Your task to perform on an android device: Check the new Jordans on Nike. Image 0: 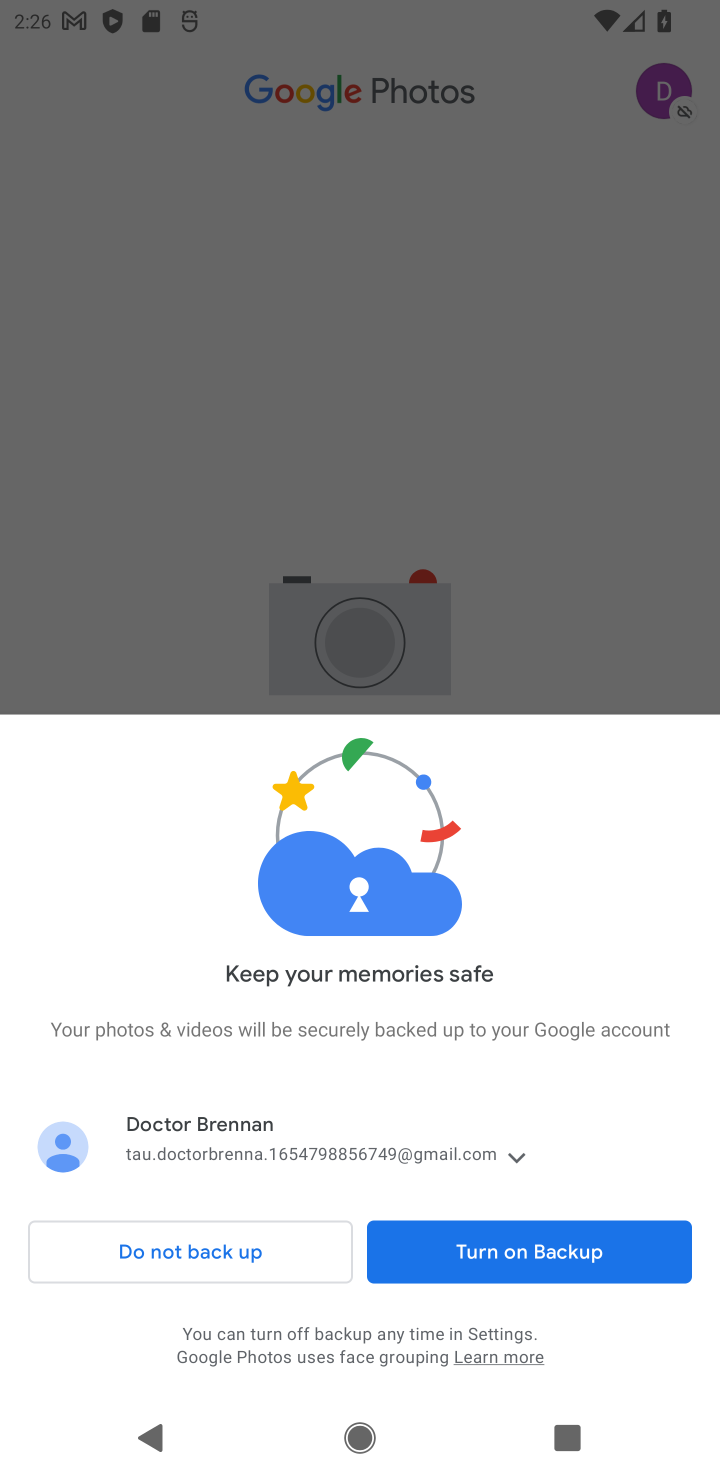
Step 0: press home button
Your task to perform on an android device: Check the new Jordans on Nike. Image 1: 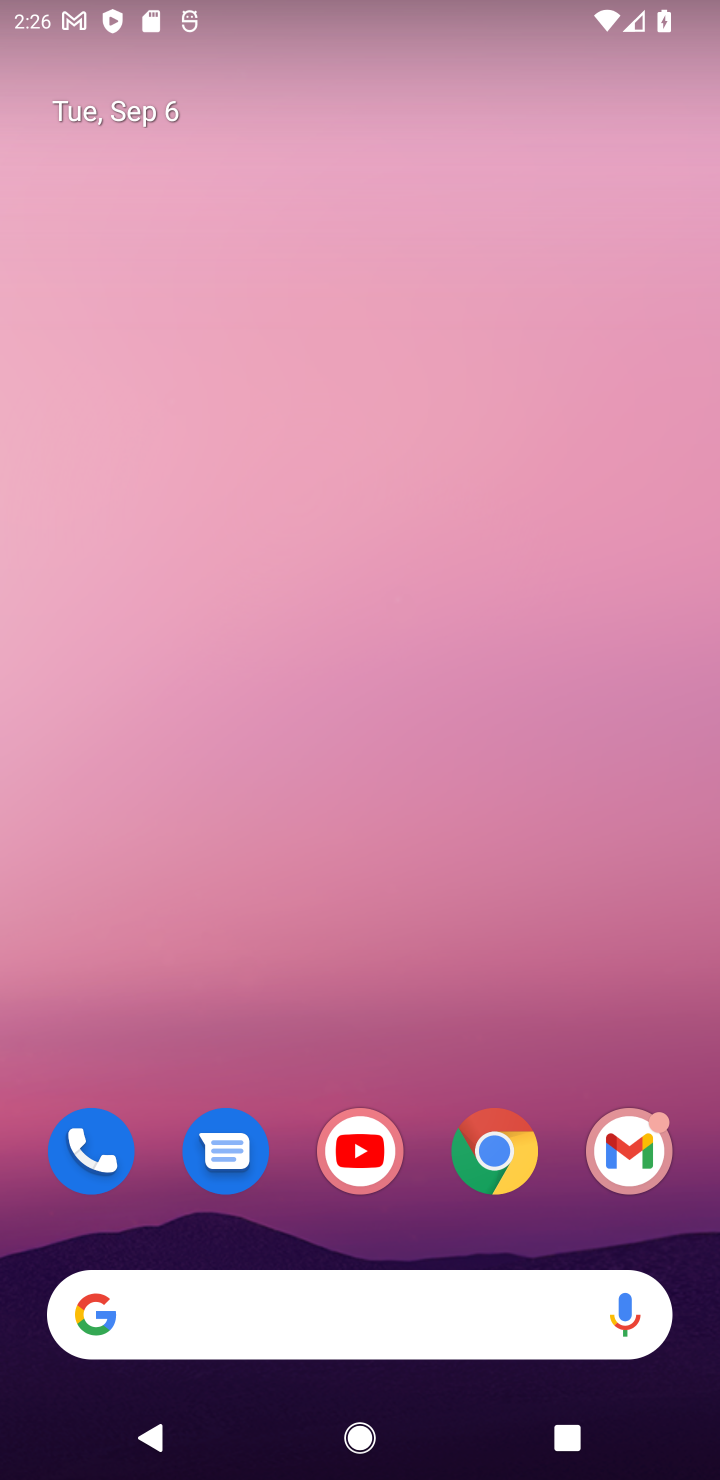
Step 1: click (473, 1150)
Your task to perform on an android device: Check the new Jordans on Nike. Image 2: 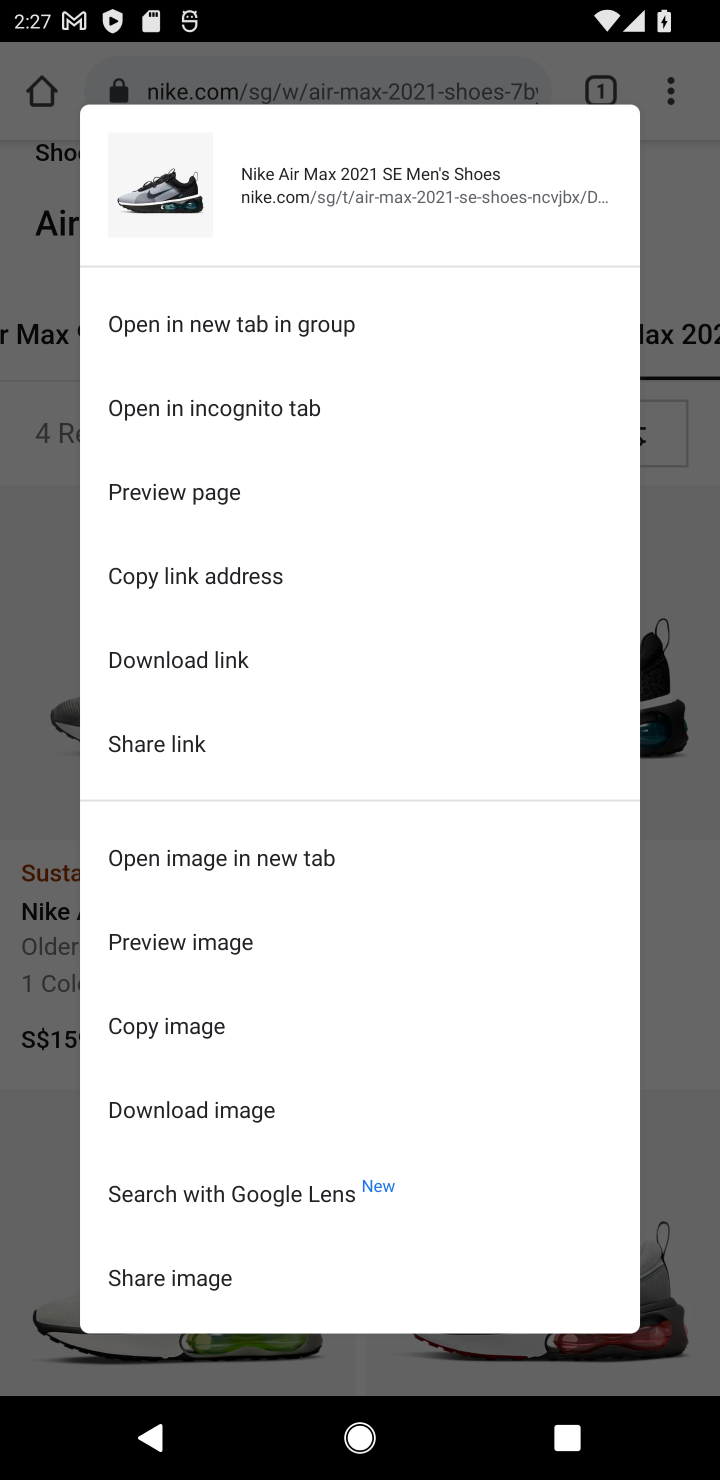
Step 2: press home button
Your task to perform on an android device: Check the new Jordans on Nike. Image 3: 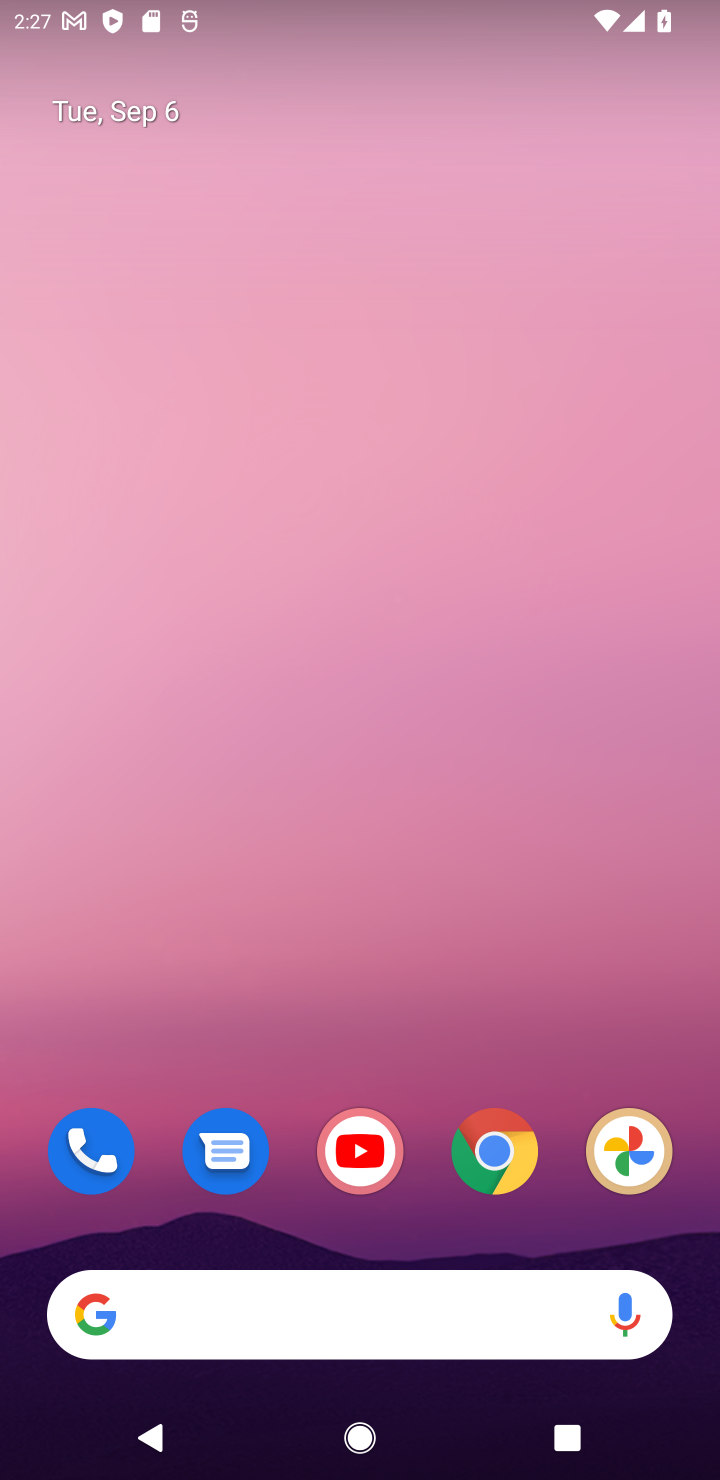
Step 3: click (482, 1146)
Your task to perform on an android device: Check the new Jordans on Nike. Image 4: 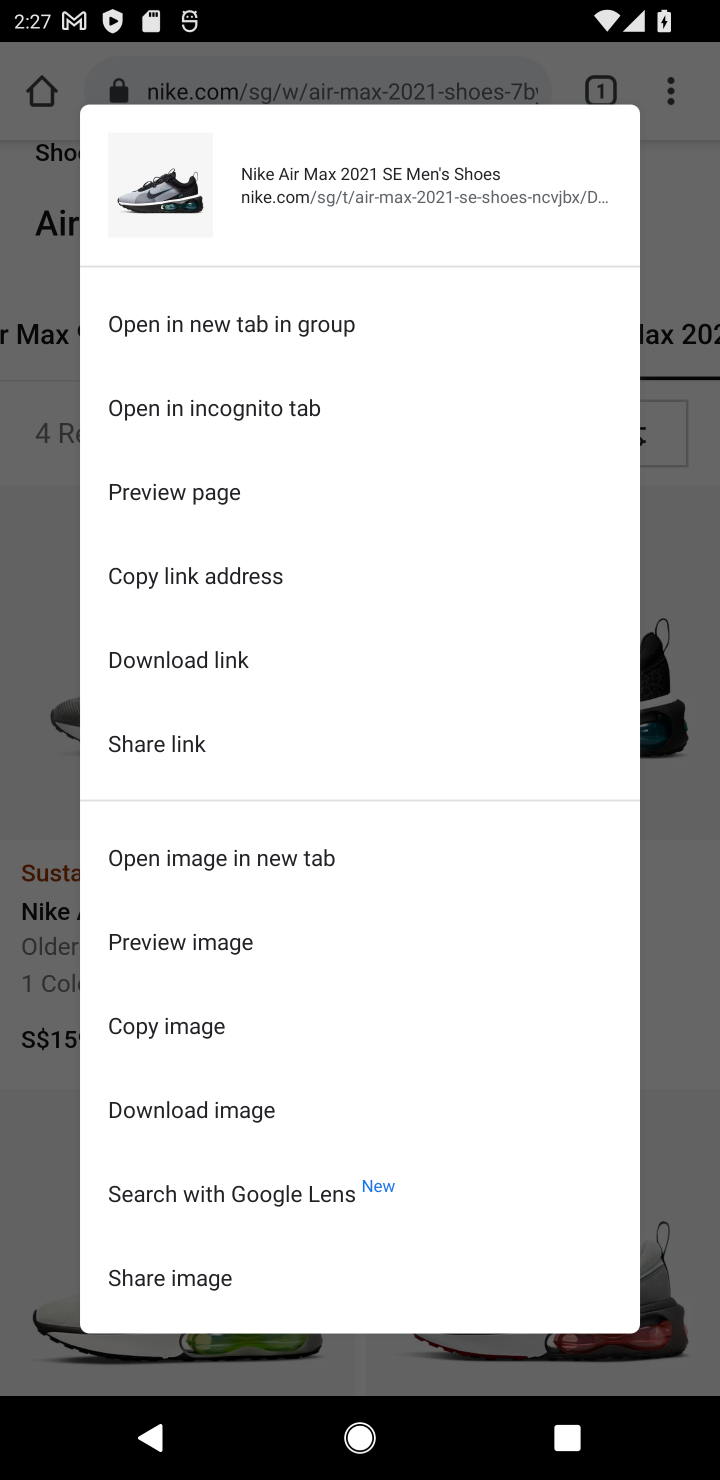
Step 4: click (692, 597)
Your task to perform on an android device: Check the new Jordans on Nike. Image 5: 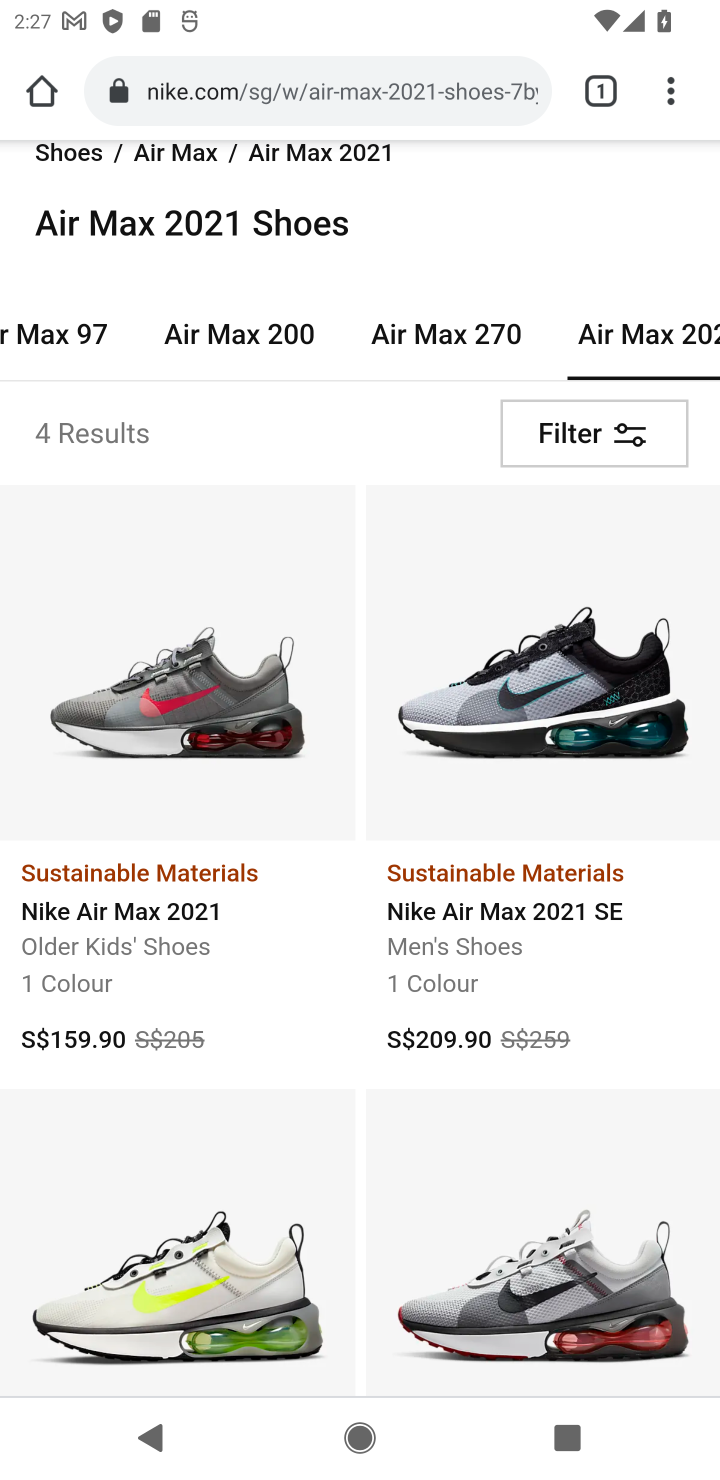
Step 5: click (330, 89)
Your task to perform on an android device: Check the new Jordans on Nike. Image 6: 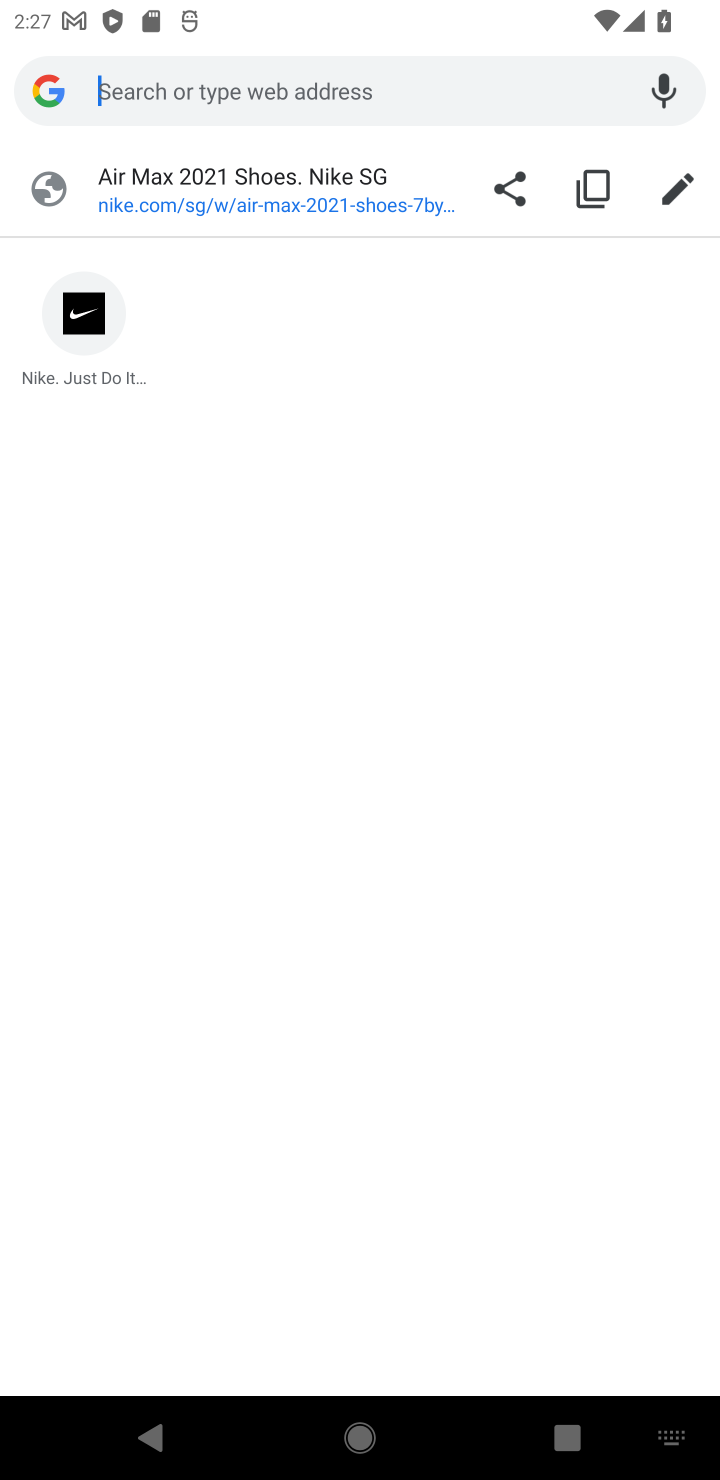
Step 6: type "new jordan on nike"
Your task to perform on an android device: Check the new Jordans on Nike. Image 7: 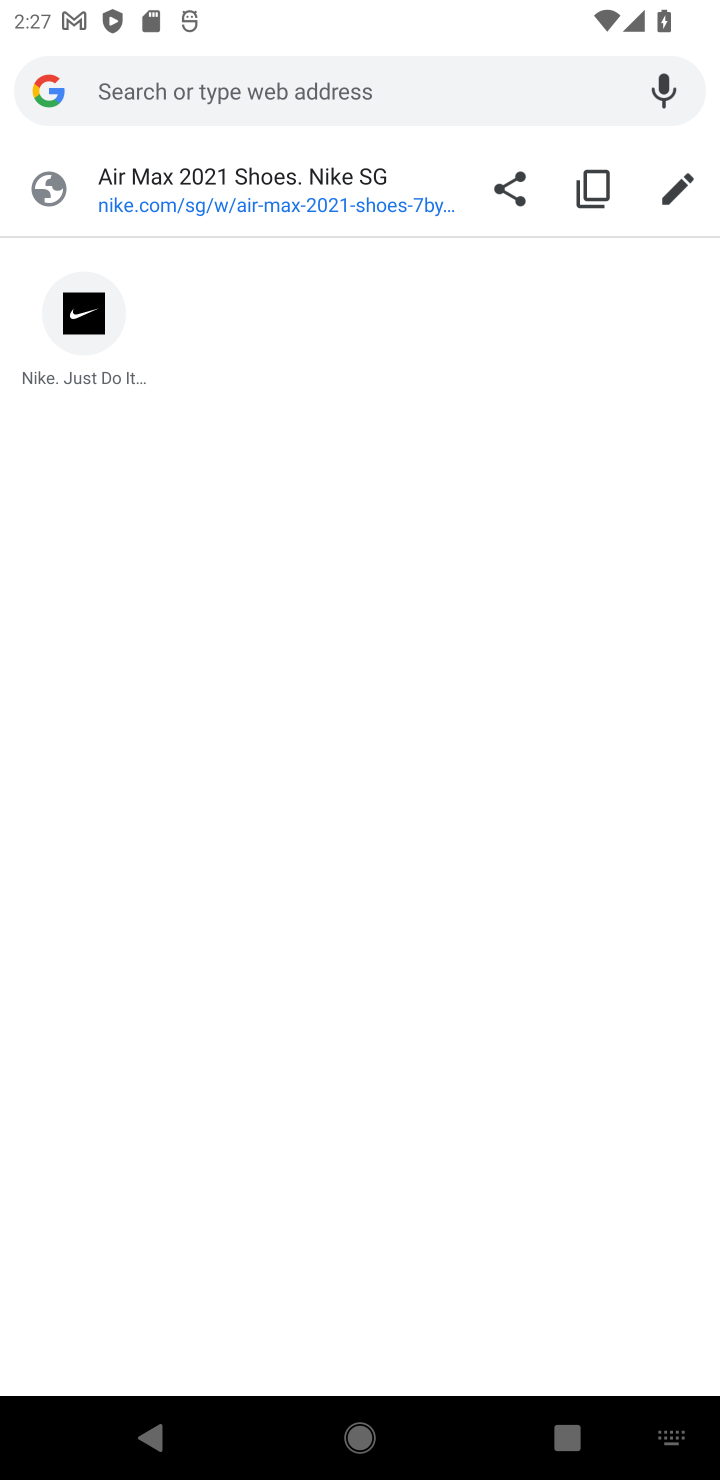
Step 7: click (75, 322)
Your task to perform on an android device: Check the new Jordans on Nike. Image 8: 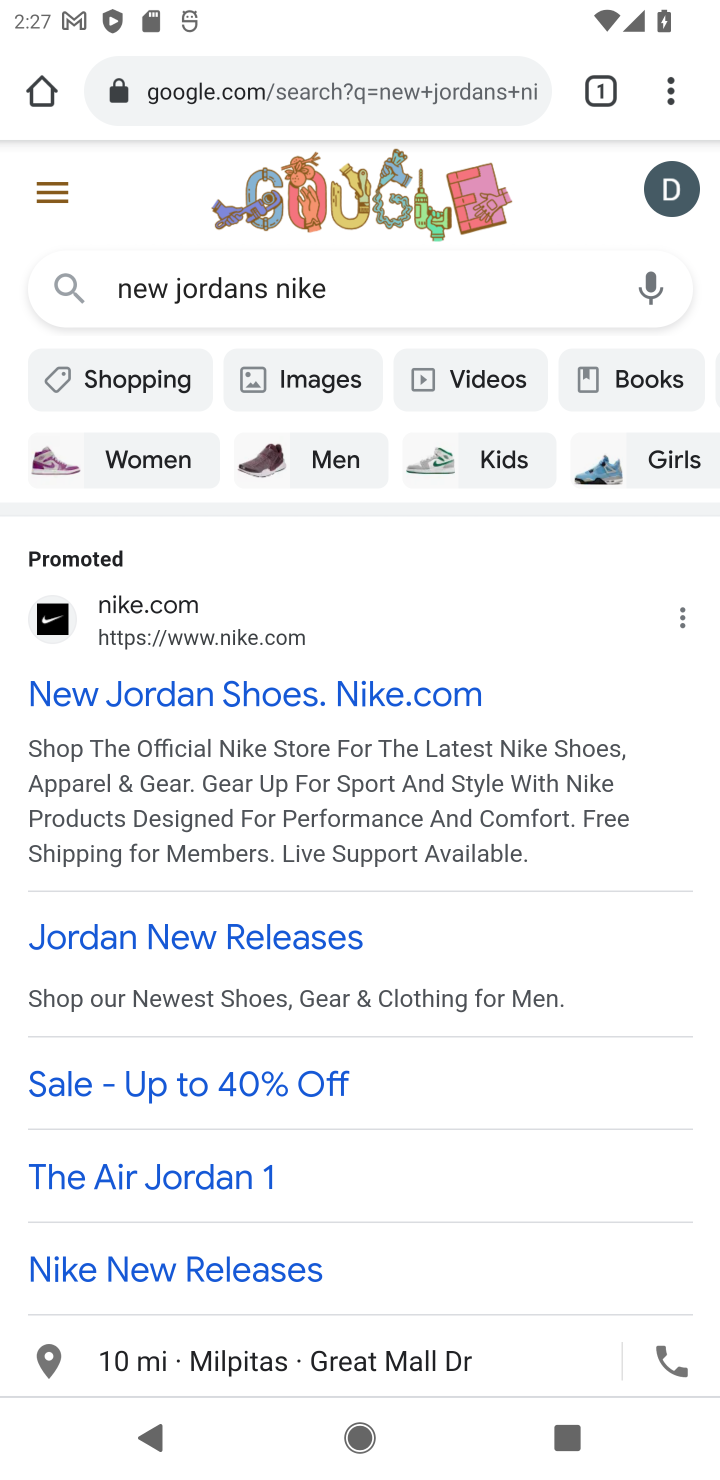
Step 8: click (153, 698)
Your task to perform on an android device: Check the new Jordans on Nike. Image 9: 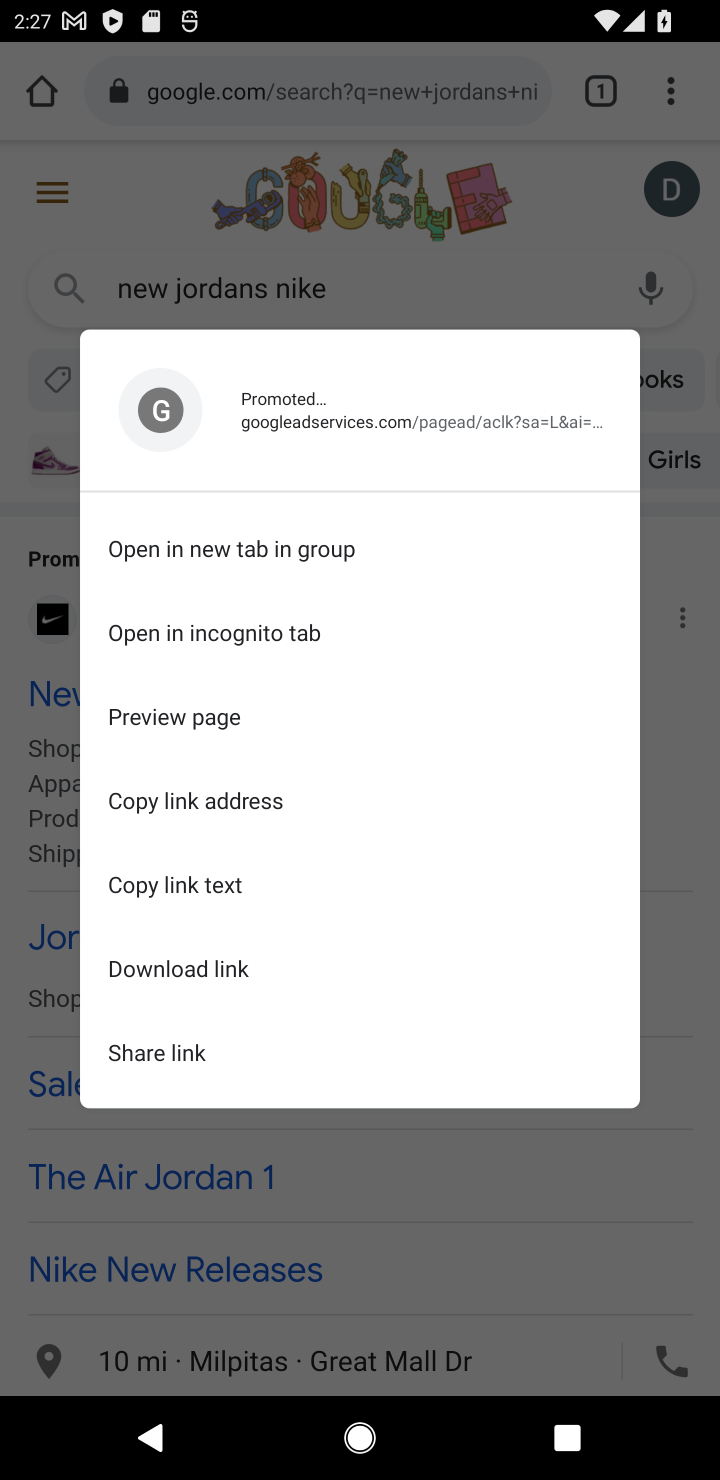
Step 9: click (656, 876)
Your task to perform on an android device: Check the new Jordans on Nike. Image 10: 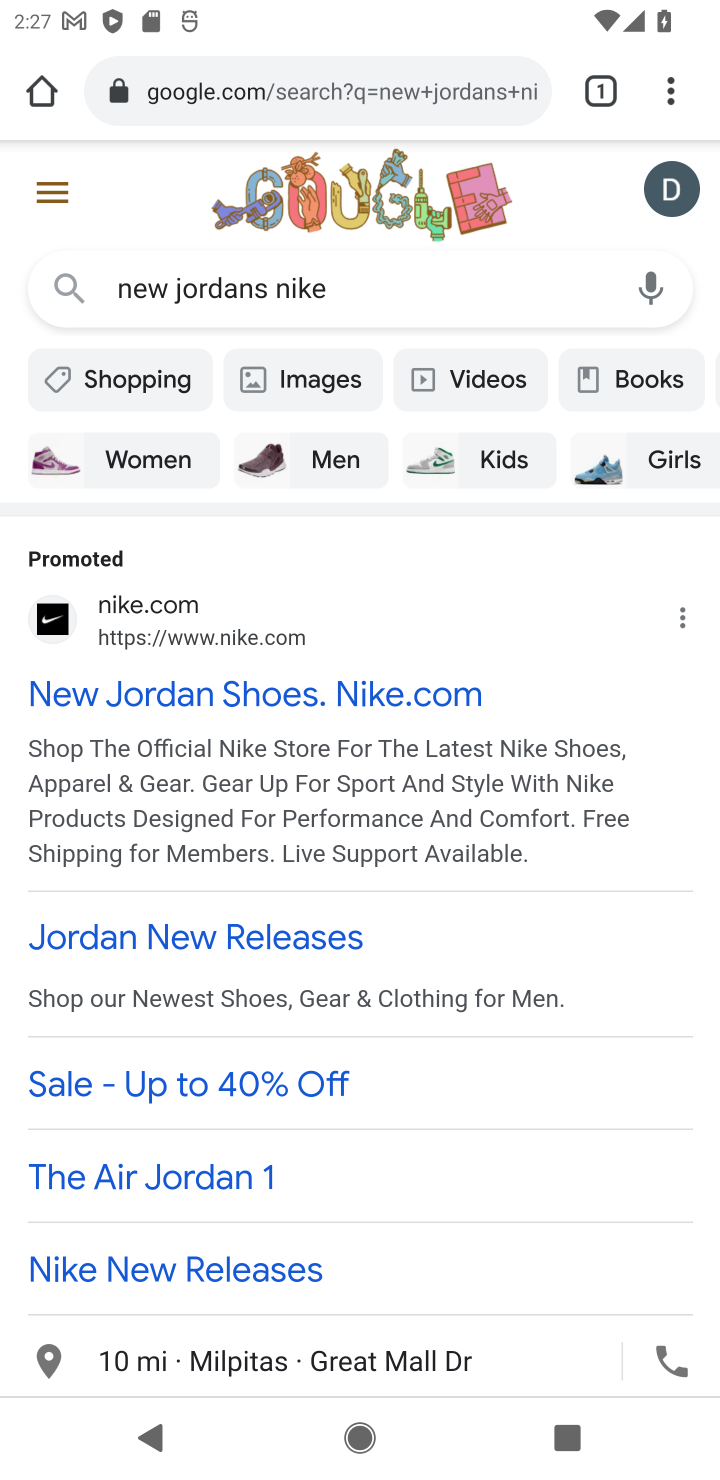
Step 10: click (147, 699)
Your task to perform on an android device: Check the new Jordans on Nike. Image 11: 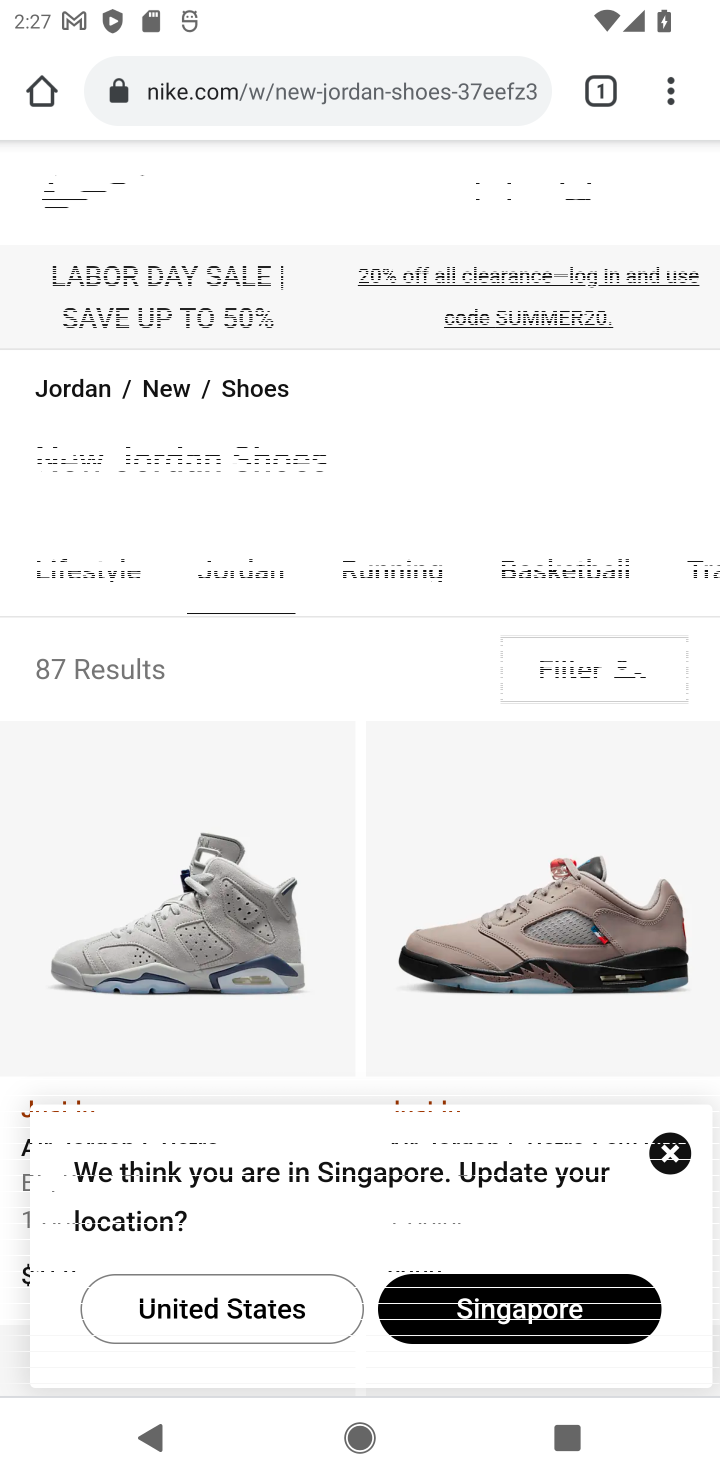
Step 11: click (668, 1157)
Your task to perform on an android device: Check the new Jordans on Nike. Image 12: 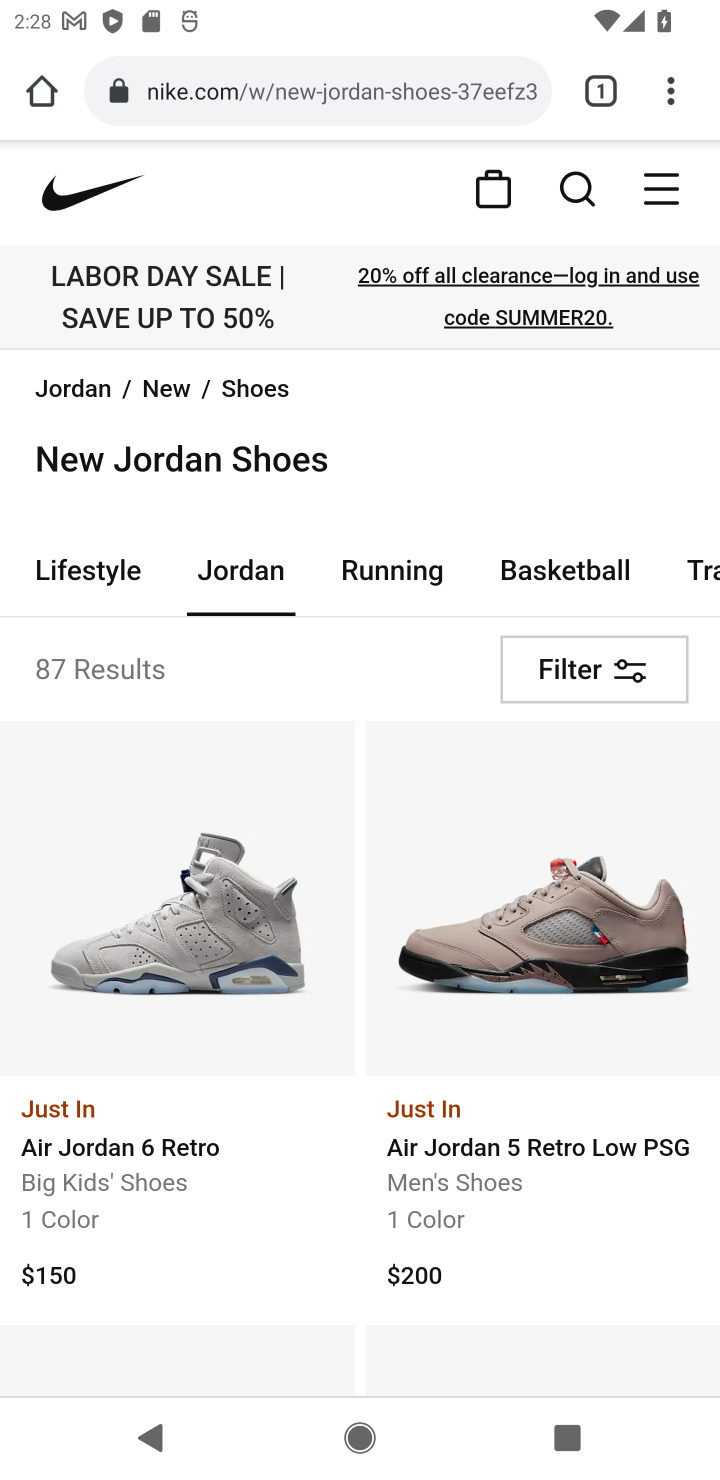
Step 12: drag from (292, 948) to (362, 420)
Your task to perform on an android device: Check the new Jordans on Nike. Image 13: 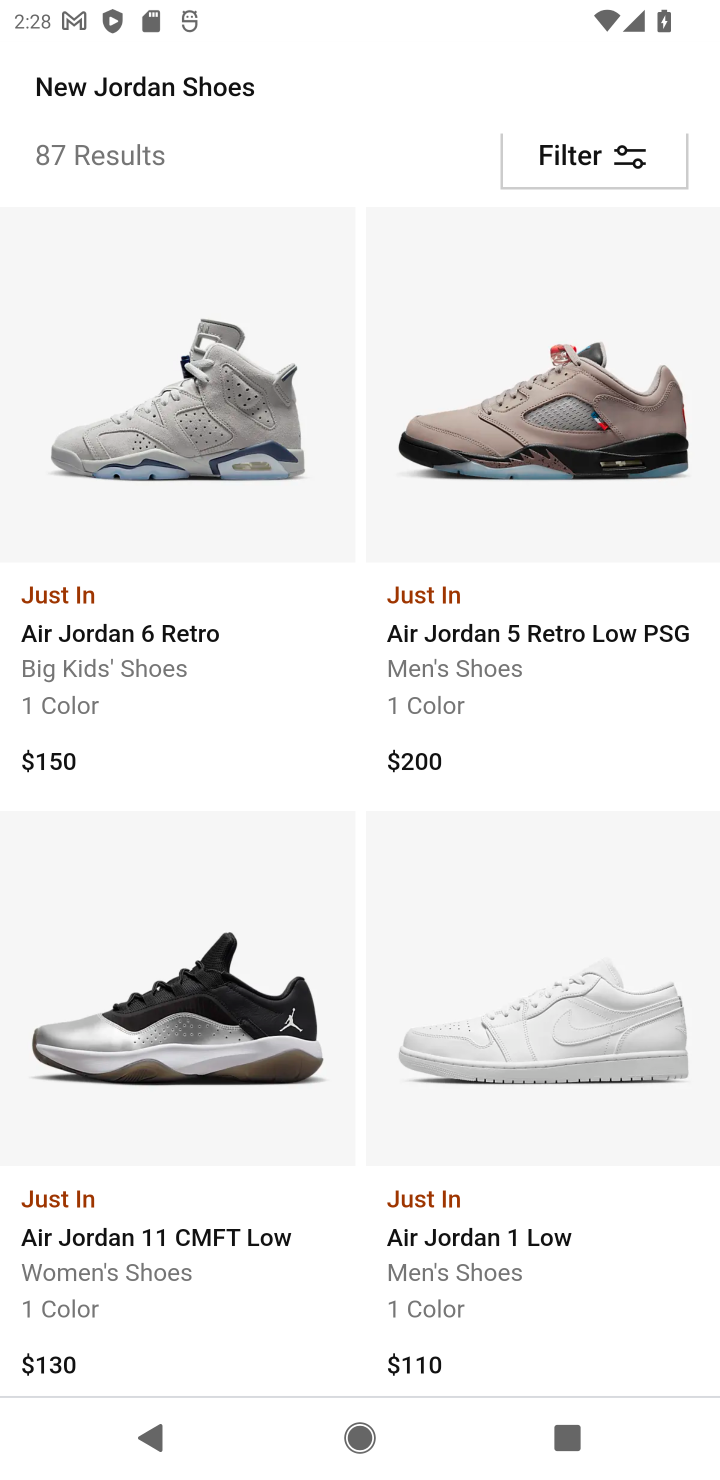
Step 13: drag from (597, 1246) to (597, 551)
Your task to perform on an android device: Check the new Jordans on Nike. Image 14: 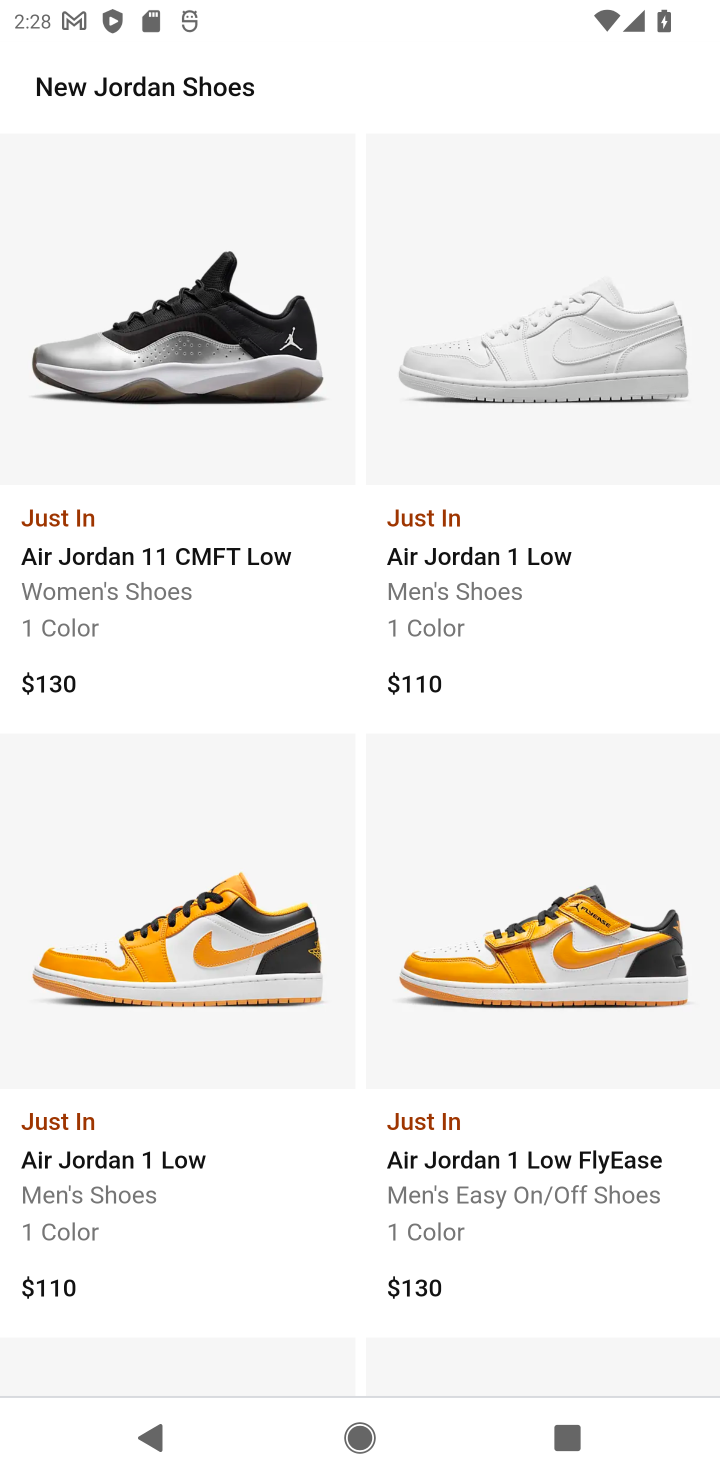
Step 14: drag from (268, 1243) to (282, 196)
Your task to perform on an android device: Check the new Jordans on Nike. Image 15: 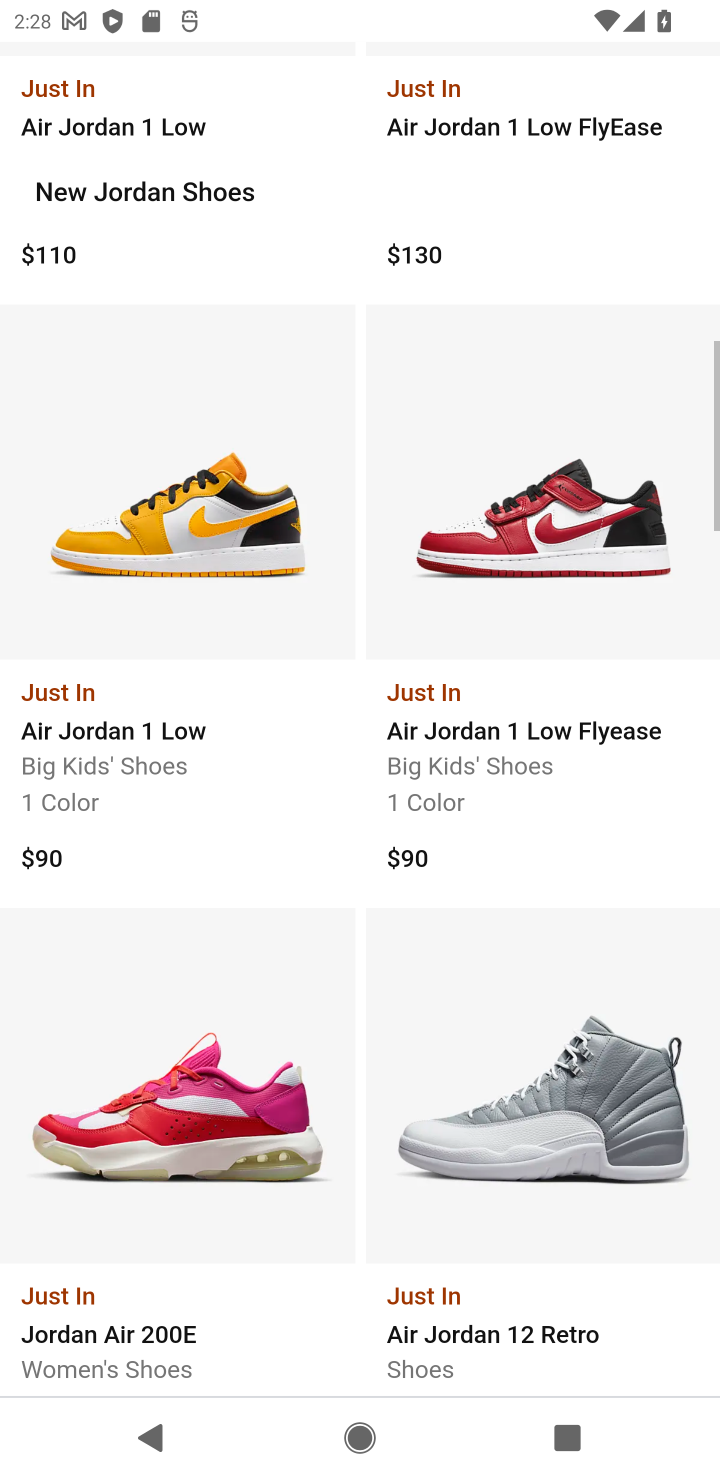
Step 15: drag from (242, 767) to (286, 380)
Your task to perform on an android device: Check the new Jordans on Nike. Image 16: 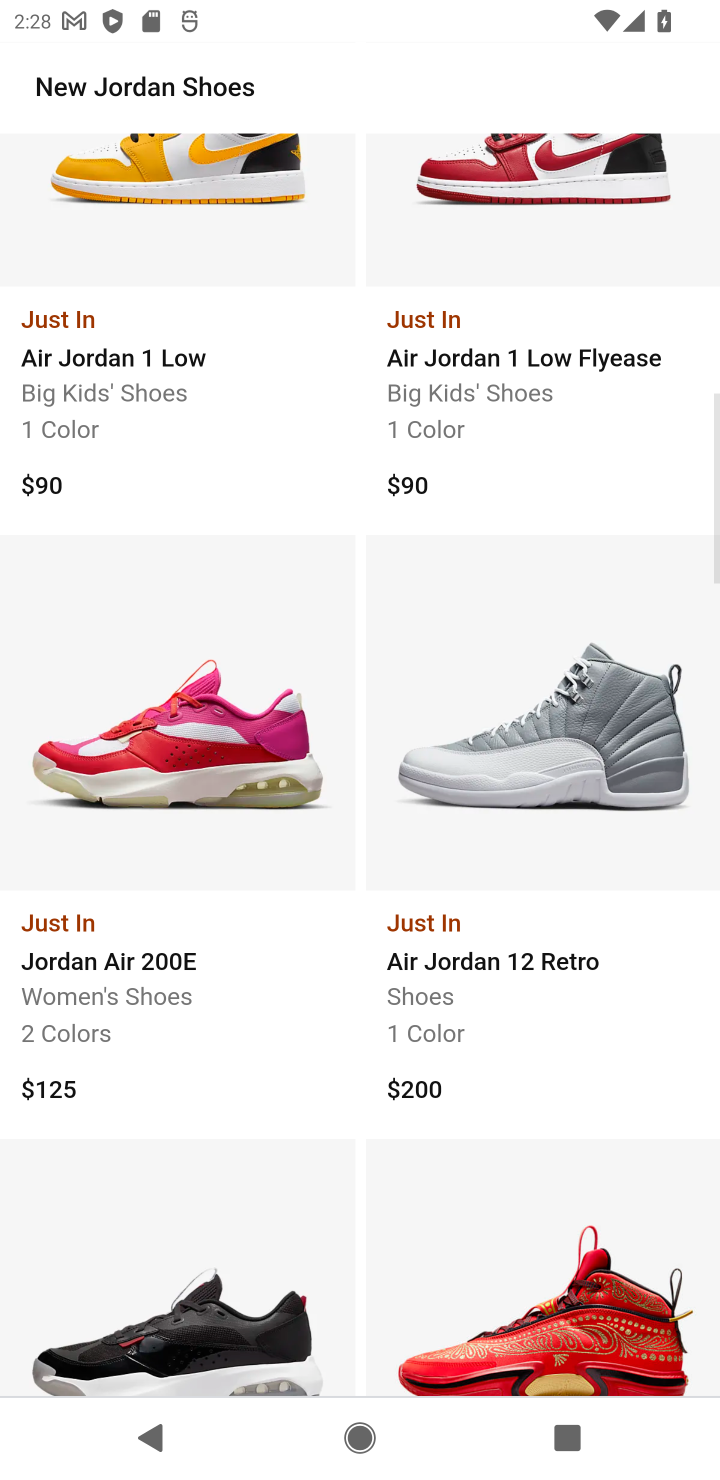
Step 16: drag from (304, 1275) to (322, 521)
Your task to perform on an android device: Check the new Jordans on Nike. Image 17: 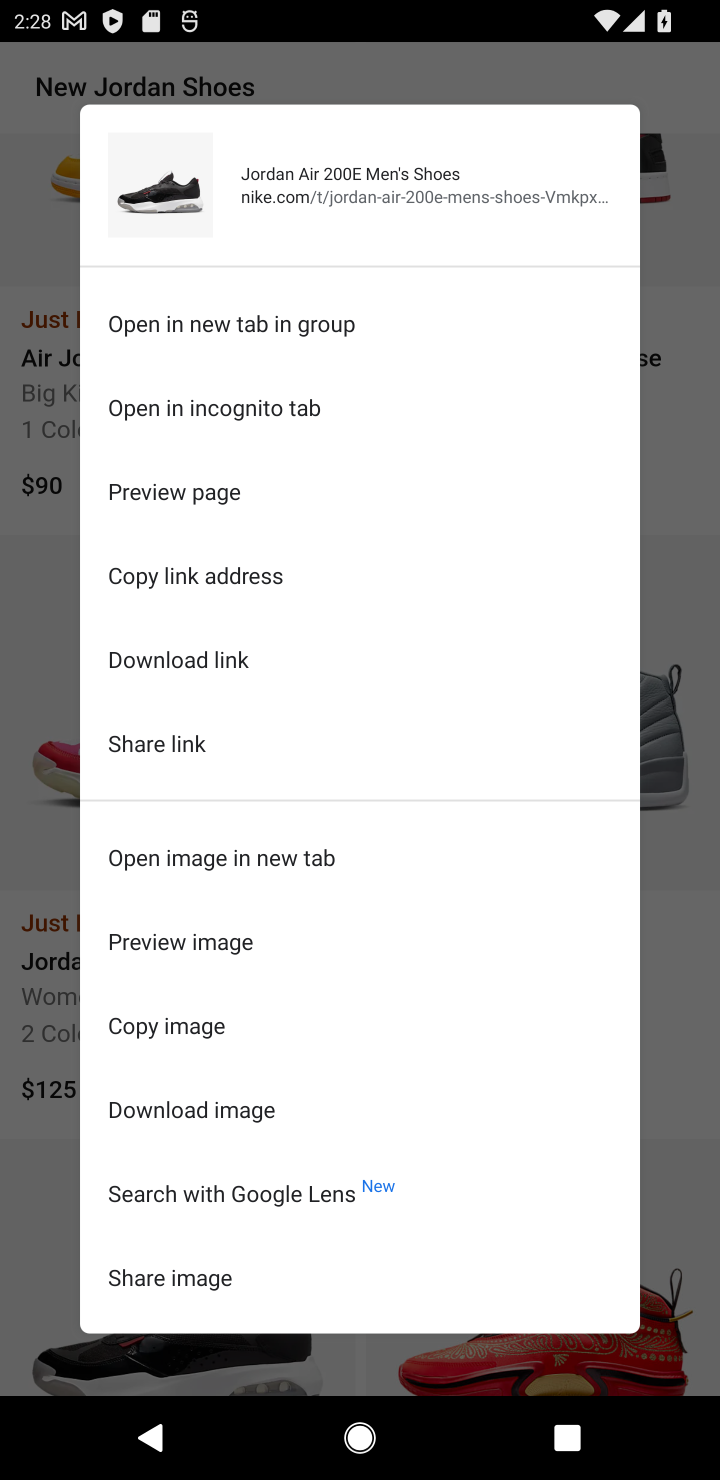
Step 17: click (702, 1151)
Your task to perform on an android device: Check the new Jordans on Nike. Image 18: 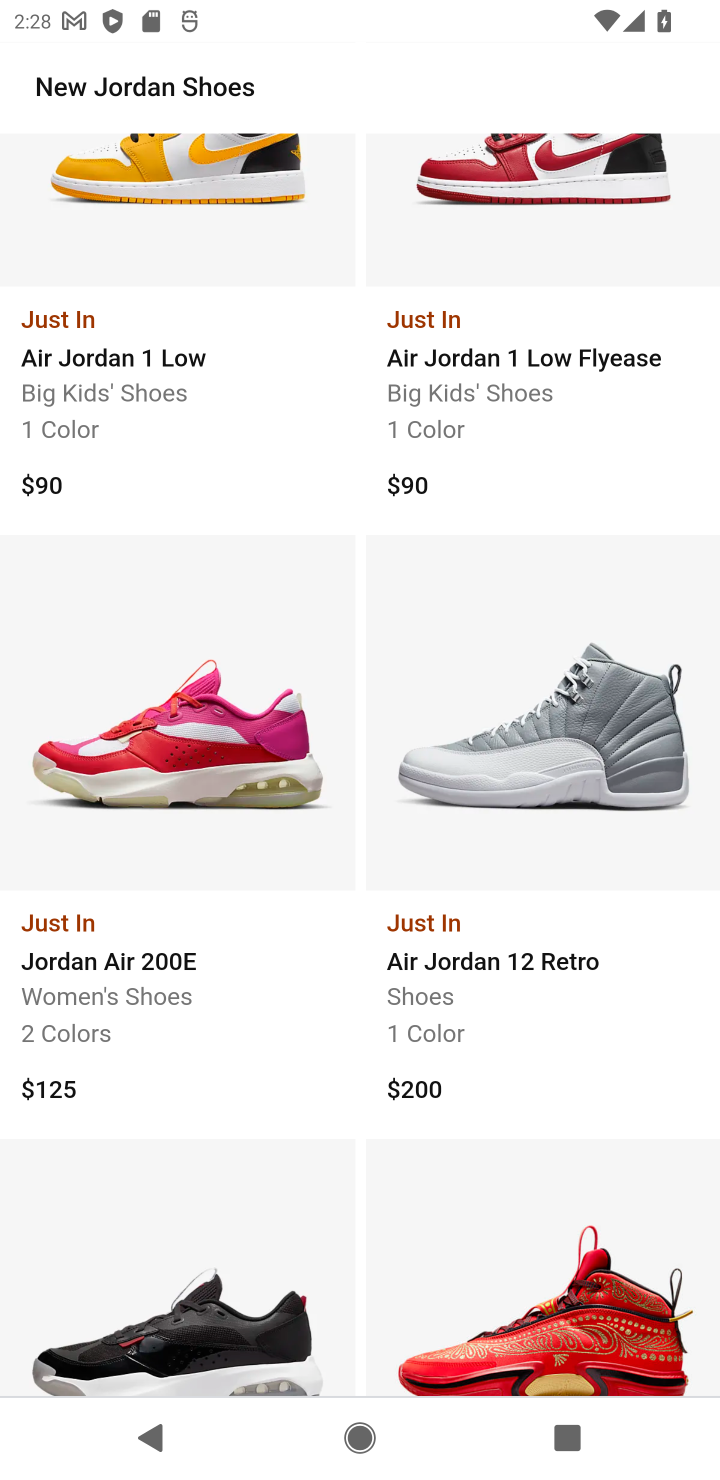
Step 18: drag from (577, 1234) to (573, 496)
Your task to perform on an android device: Check the new Jordans on Nike. Image 19: 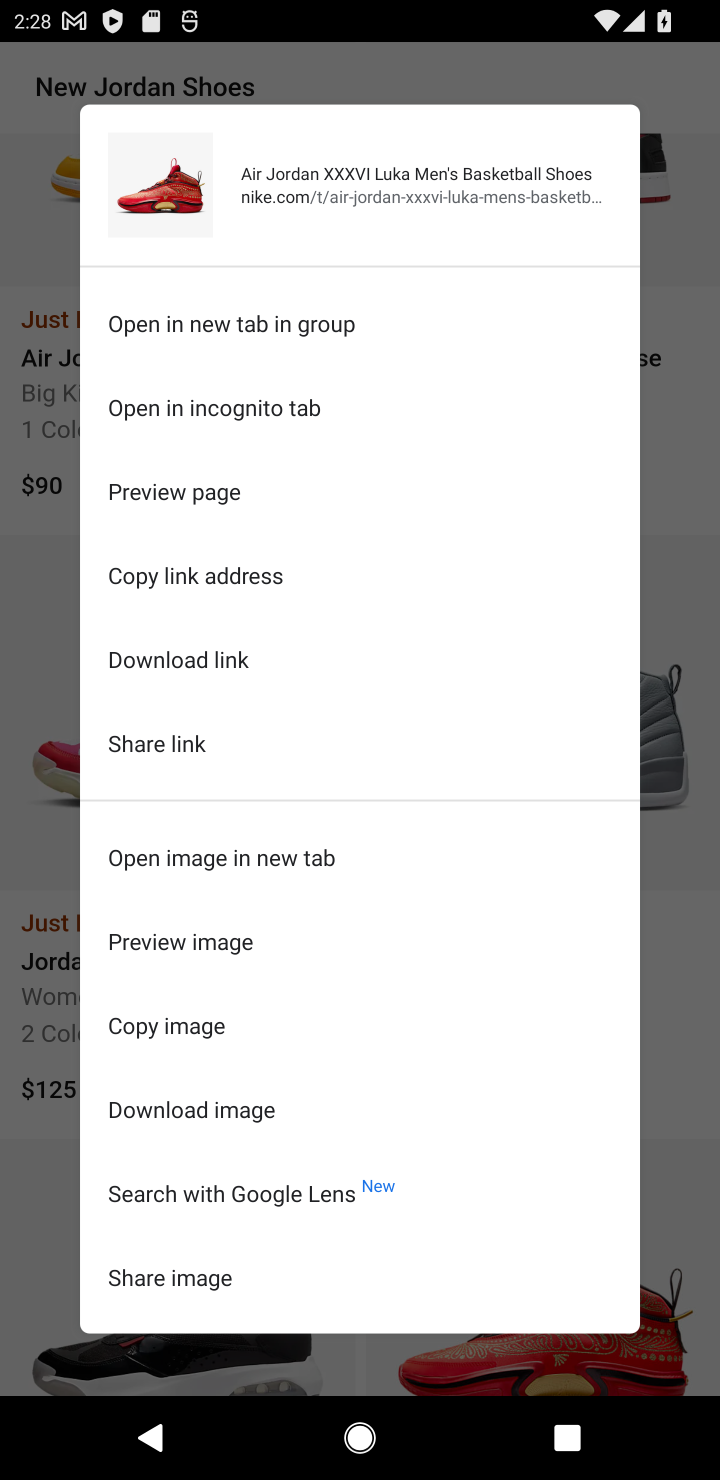
Step 19: click (688, 883)
Your task to perform on an android device: Check the new Jordans on Nike. Image 20: 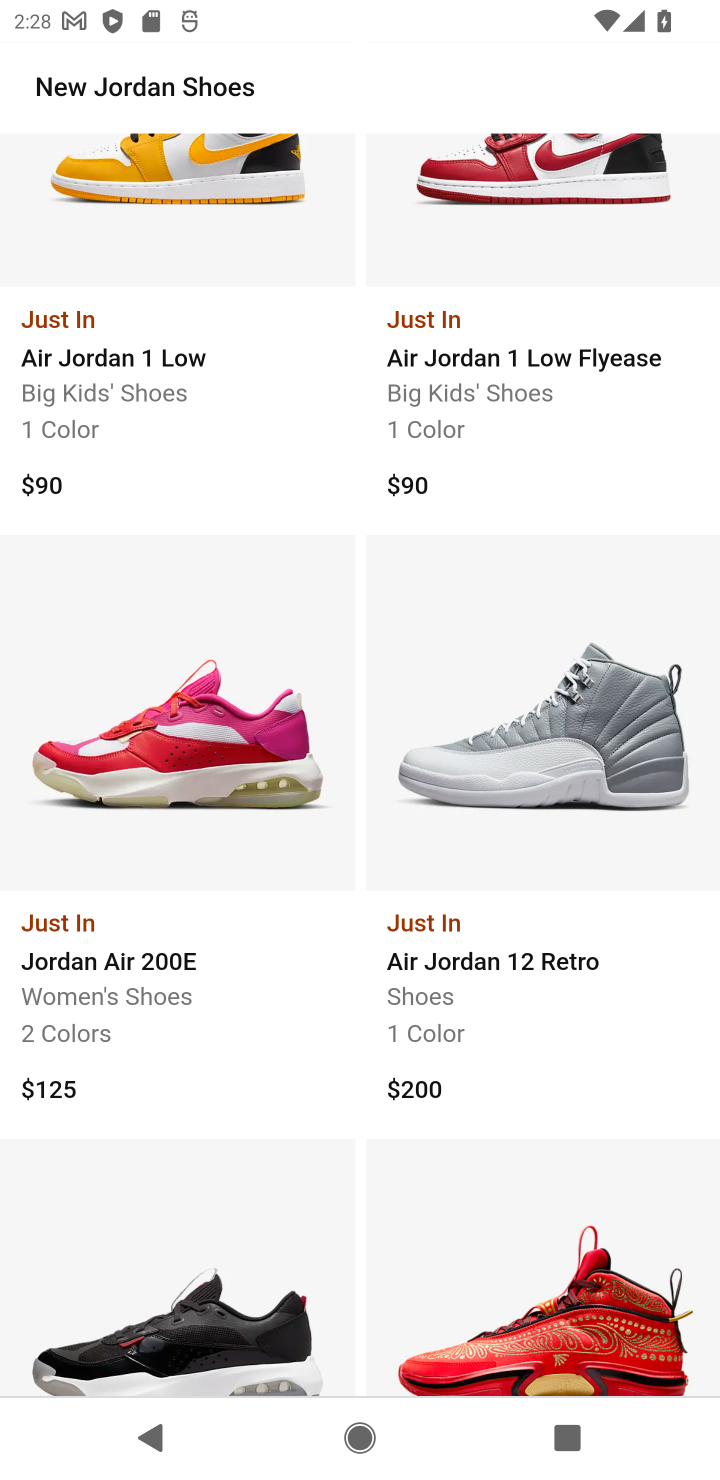
Step 20: task complete